Your task to perform on an android device: move a message to another label in the gmail app Image 0: 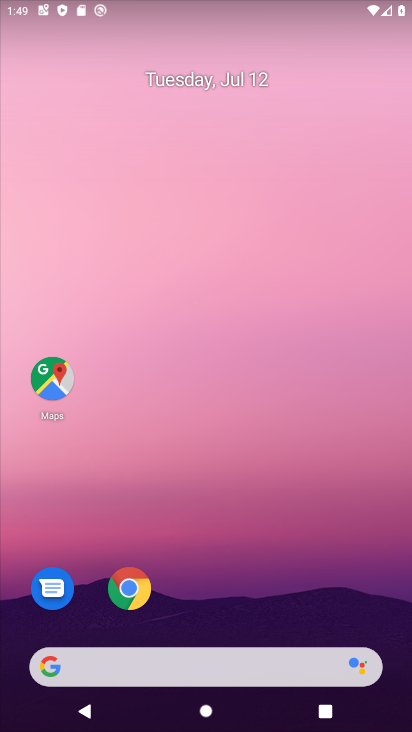
Step 0: drag from (218, 539) to (305, 41)
Your task to perform on an android device: move a message to another label in the gmail app Image 1: 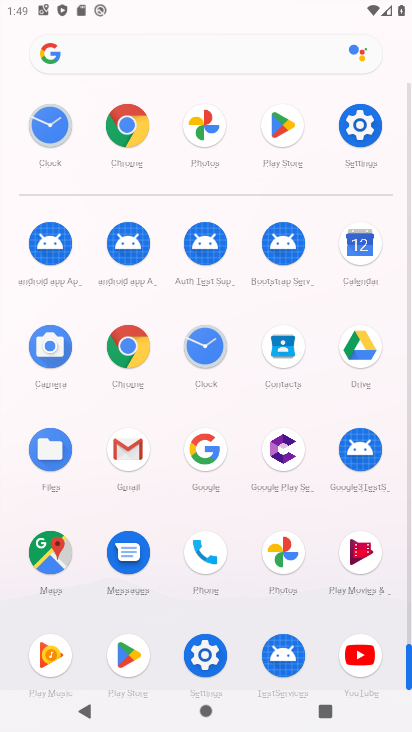
Step 1: drag from (177, 607) to (227, 203)
Your task to perform on an android device: move a message to another label in the gmail app Image 2: 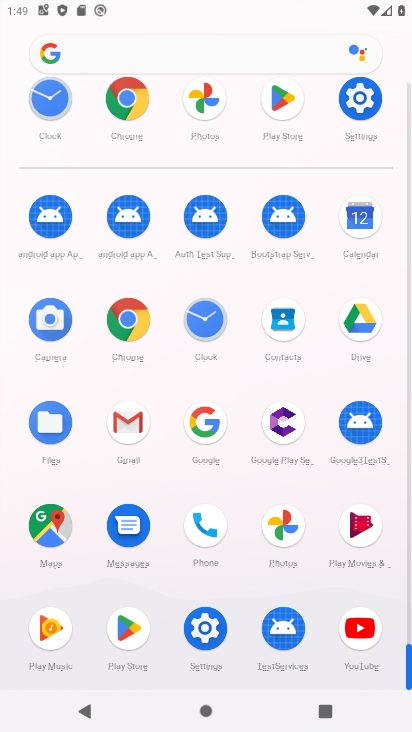
Step 2: click (125, 432)
Your task to perform on an android device: move a message to another label in the gmail app Image 3: 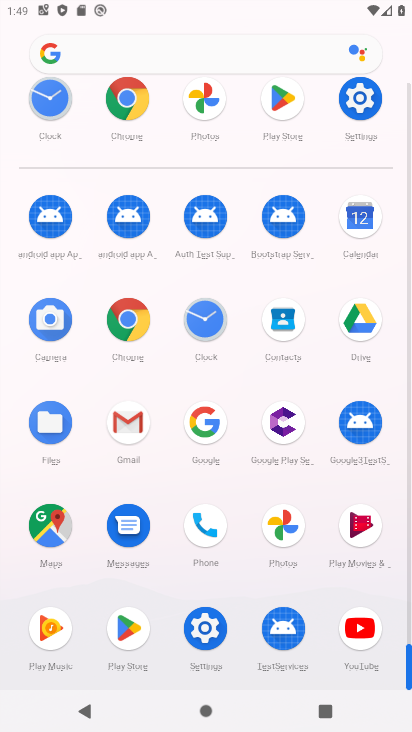
Step 3: click (125, 430)
Your task to perform on an android device: move a message to another label in the gmail app Image 4: 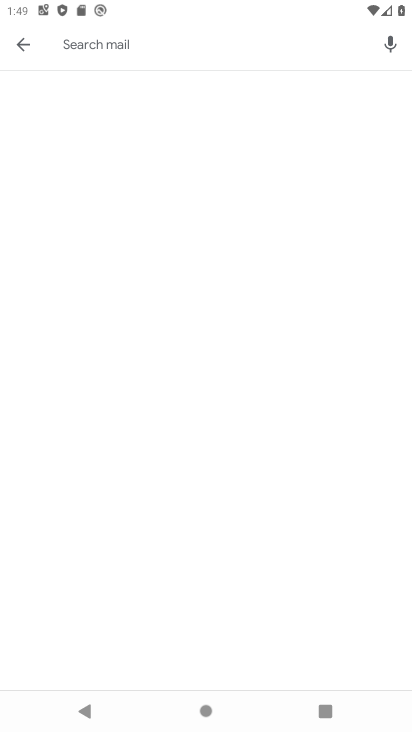
Step 4: click (30, 39)
Your task to perform on an android device: move a message to another label in the gmail app Image 5: 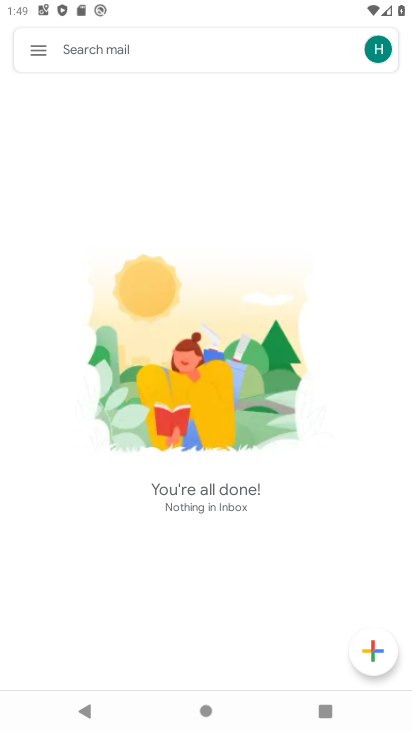
Step 5: task complete